Your task to perform on an android device: search for starred emails in the gmail app Image 0: 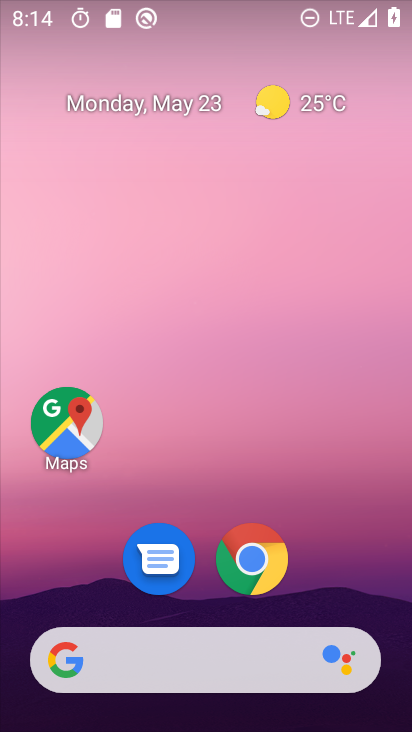
Step 0: drag from (391, 644) to (241, 64)
Your task to perform on an android device: search for starred emails in the gmail app Image 1: 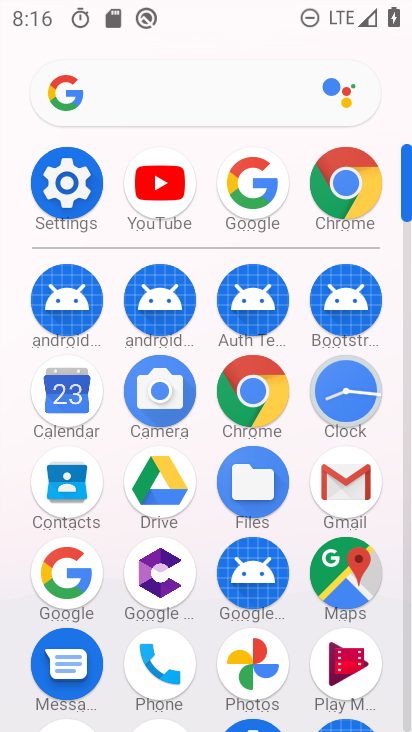
Step 1: click (356, 495)
Your task to perform on an android device: search for starred emails in the gmail app Image 2: 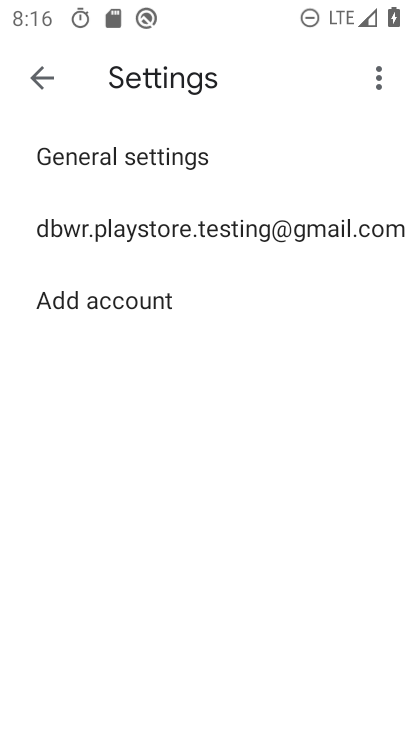
Step 2: press back button
Your task to perform on an android device: search for starred emails in the gmail app Image 3: 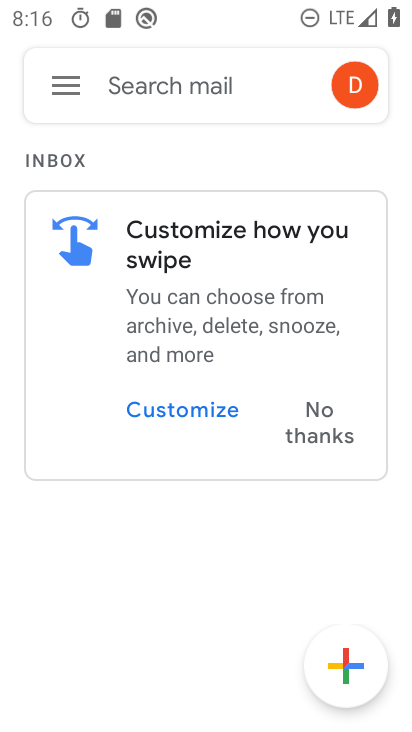
Step 3: click (53, 74)
Your task to perform on an android device: search for starred emails in the gmail app Image 4: 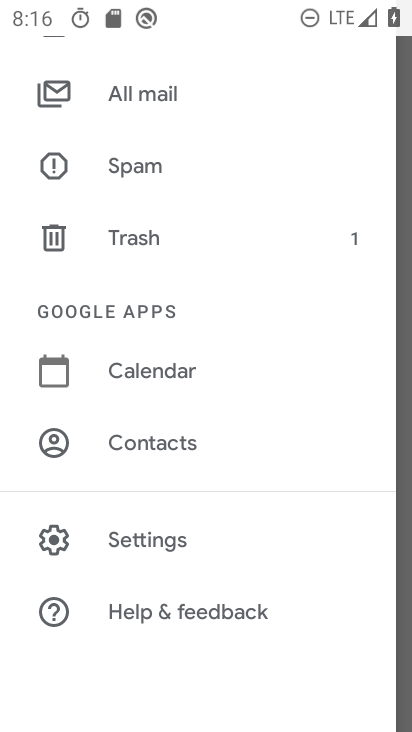
Step 4: drag from (140, 217) to (113, 665)
Your task to perform on an android device: search for starred emails in the gmail app Image 5: 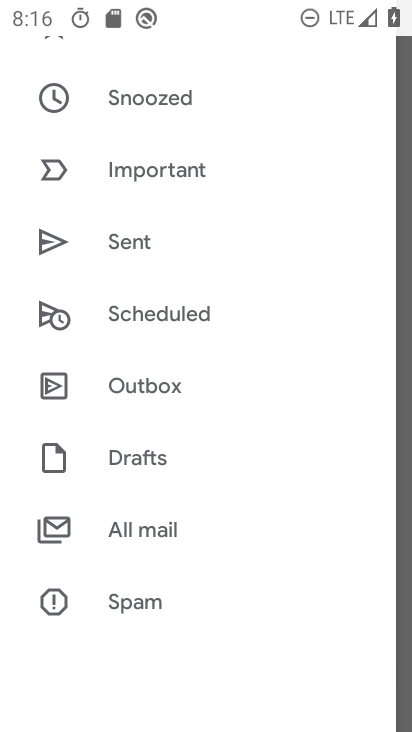
Step 5: drag from (139, 147) to (171, 583)
Your task to perform on an android device: search for starred emails in the gmail app Image 6: 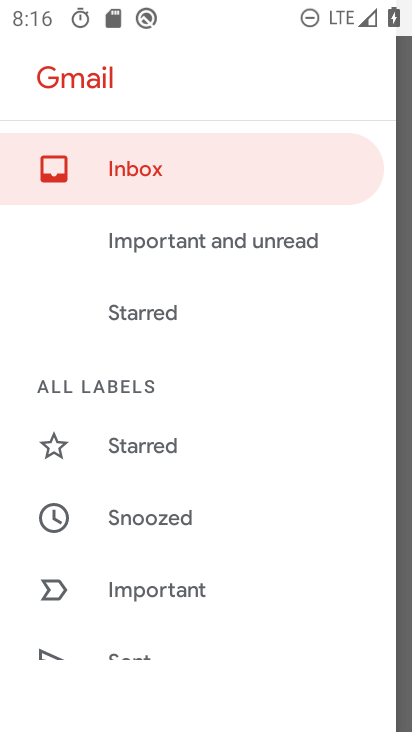
Step 6: click (130, 441)
Your task to perform on an android device: search for starred emails in the gmail app Image 7: 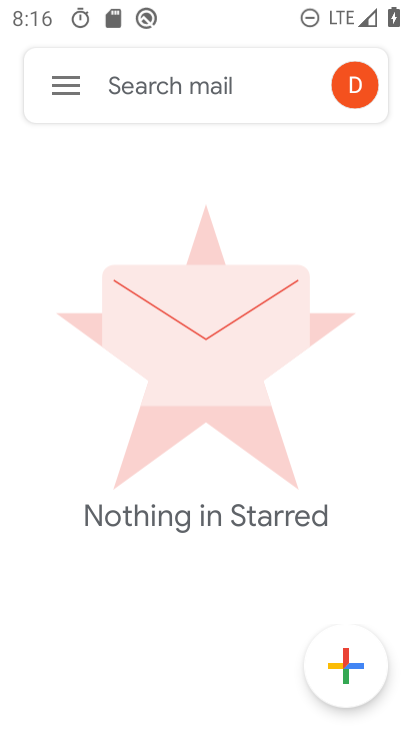
Step 7: task complete